Your task to perform on an android device: What is the news today? Image 0: 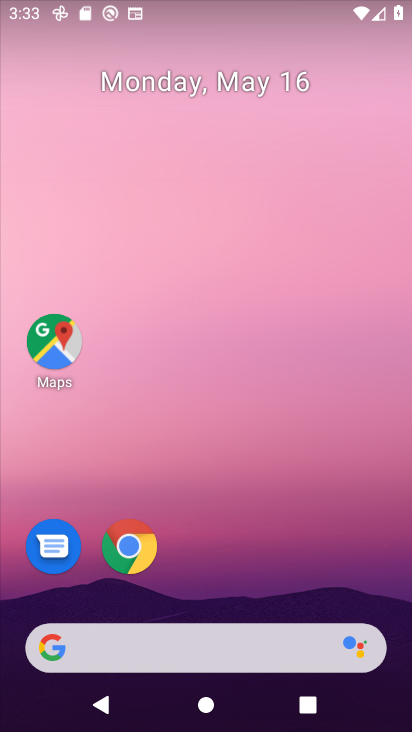
Step 0: drag from (2, 223) to (402, 428)
Your task to perform on an android device: What is the news today? Image 1: 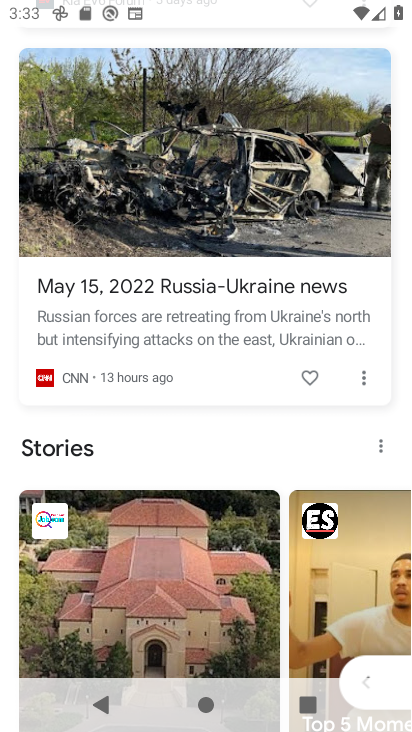
Step 1: task complete